Your task to perform on an android device: Go to eBay Image 0: 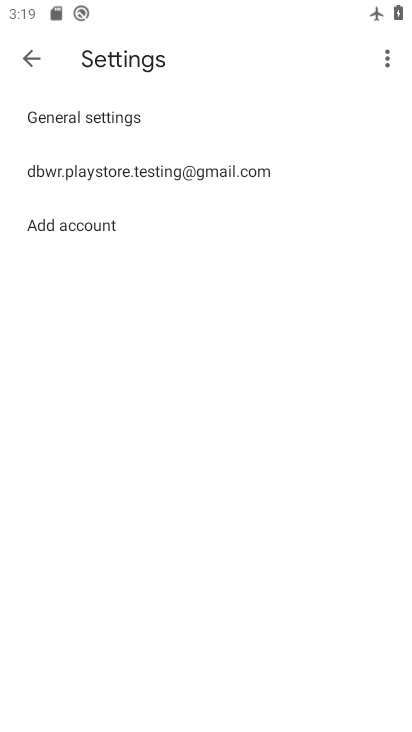
Step 0: press home button
Your task to perform on an android device: Go to eBay Image 1: 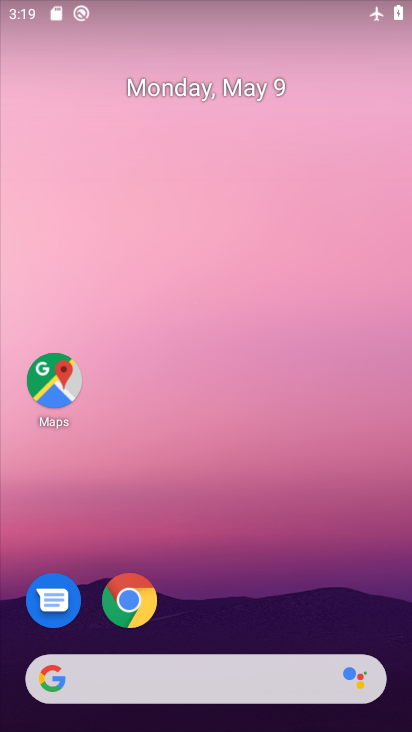
Step 1: click (139, 616)
Your task to perform on an android device: Go to eBay Image 2: 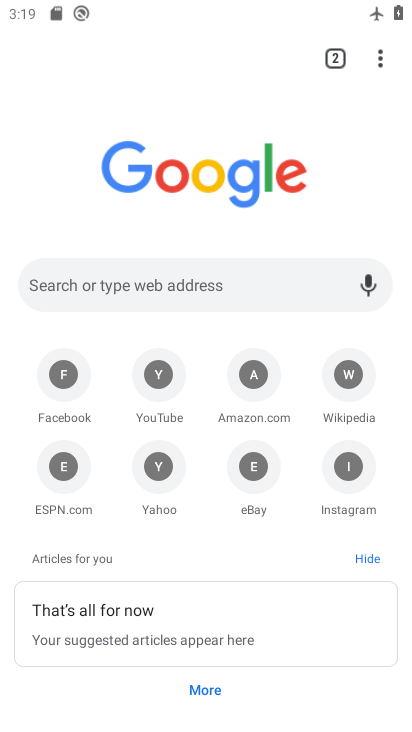
Step 2: click (229, 283)
Your task to perform on an android device: Go to eBay Image 3: 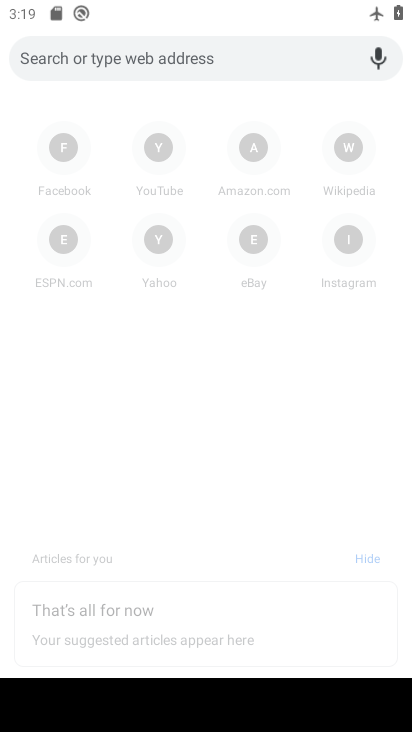
Step 3: type "eBay"
Your task to perform on an android device: Go to eBay Image 4: 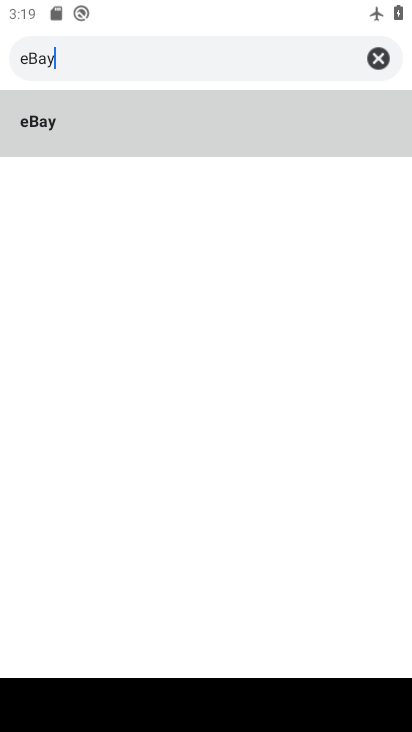
Step 4: click (177, 128)
Your task to perform on an android device: Go to eBay Image 5: 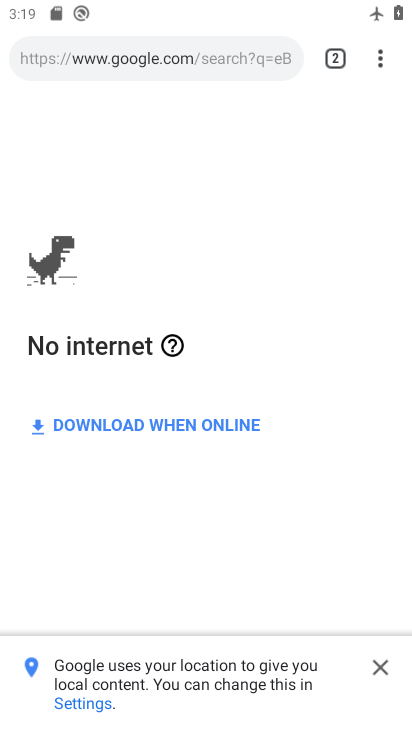
Step 5: task complete